Your task to perform on an android device: Set the phone to "Do not disturb". Image 0: 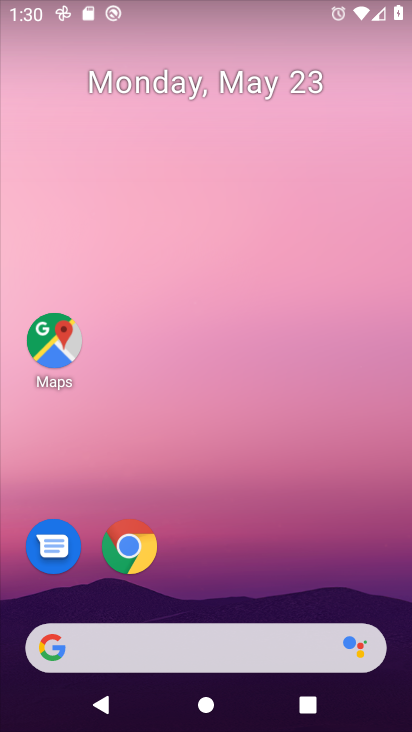
Step 0: drag from (295, 52) to (231, 393)
Your task to perform on an android device: Set the phone to "Do not disturb". Image 1: 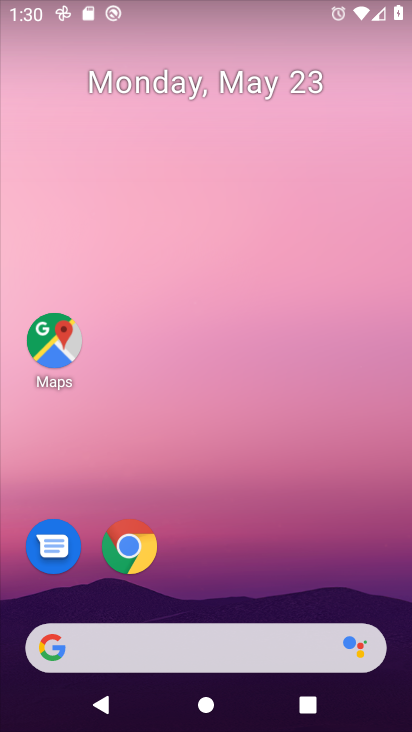
Step 1: drag from (301, 34) to (232, 417)
Your task to perform on an android device: Set the phone to "Do not disturb". Image 2: 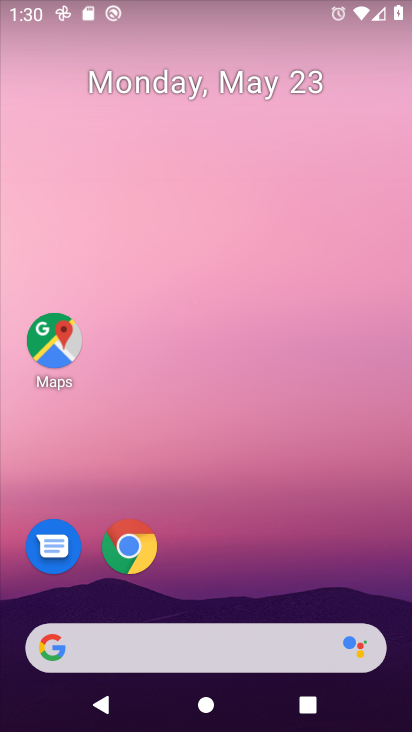
Step 2: drag from (362, 15) to (343, 193)
Your task to perform on an android device: Set the phone to "Do not disturb". Image 3: 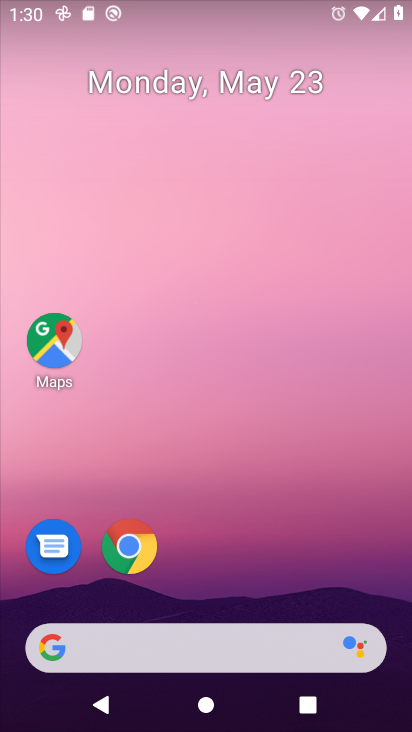
Step 3: drag from (324, 20) to (305, 317)
Your task to perform on an android device: Set the phone to "Do not disturb". Image 4: 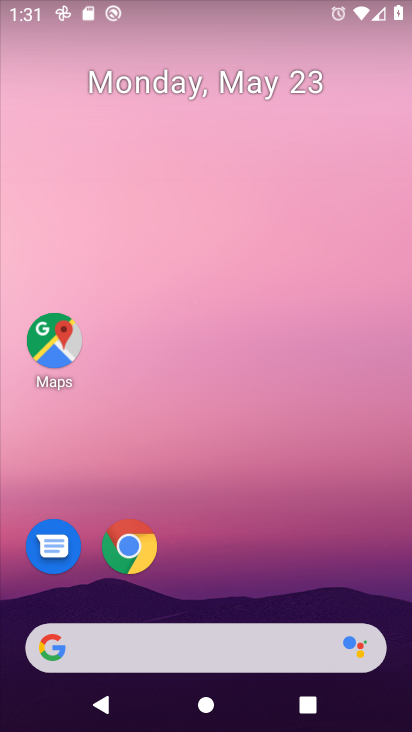
Step 4: drag from (275, 21) to (202, 528)
Your task to perform on an android device: Set the phone to "Do not disturb". Image 5: 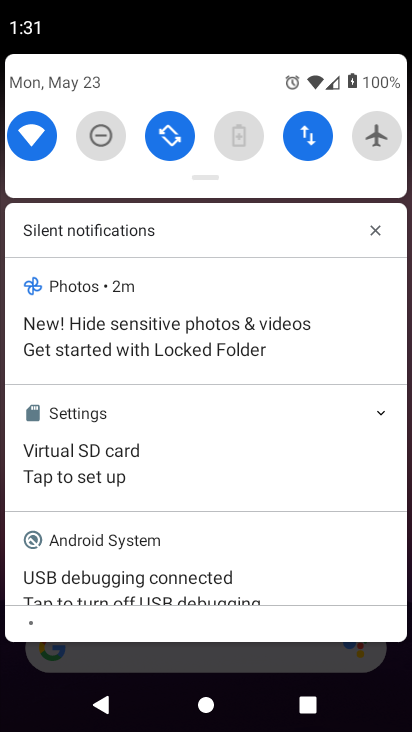
Step 5: click (111, 137)
Your task to perform on an android device: Set the phone to "Do not disturb". Image 6: 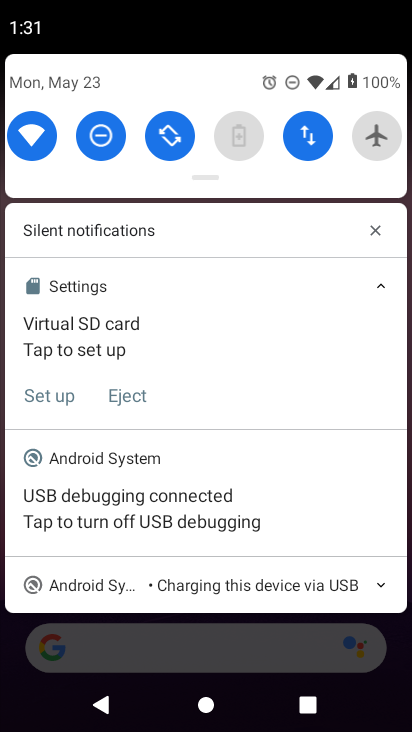
Step 6: task complete